Your task to perform on an android device: open app "Firefox Browser" (install if not already installed) Image 0: 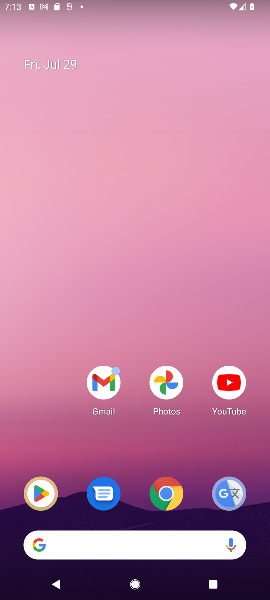
Step 0: drag from (151, 597) to (133, 56)
Your task to perform on an android device: open app "Firefox Browser" (install if not already installed) Image 1: 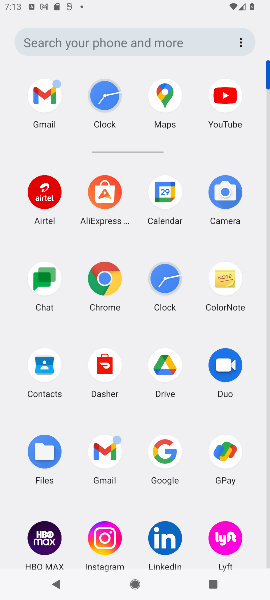
Step 1: drag from (124, 510) to (124, 235)
Your task to perform on an android device: open app "Firefox Browser" (install if not already installed) Image 2: 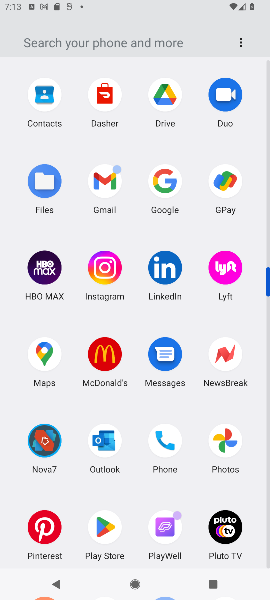
Step 2: drag from (132, 503) to (130, 197)
Your task to perform on an android device: open app "Firefox Browser" (install if not already installed) Image 3: 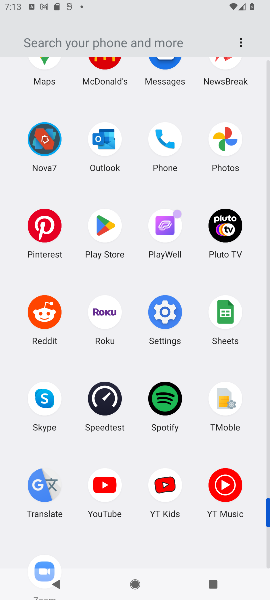
Step 3: press home button
Your task to perform on an android device: open app "Firefox Browser" (install if not already installed) Image 4: 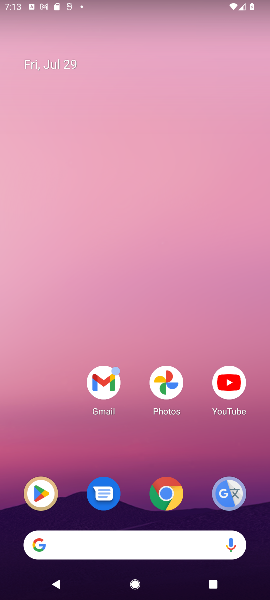
Step 4: drag from (227, 447) to (35, 447)
Your task to perform on an android device: open app "Firefox Browser" (install if not already installed) Image 5: 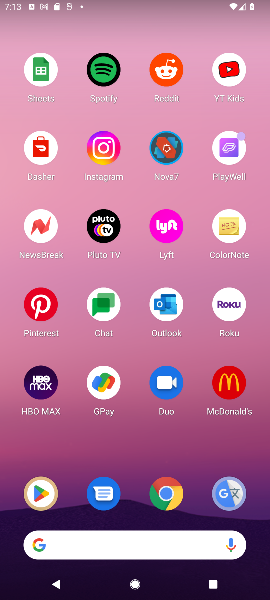
Step 5: drag from (208, 445) to (39, 432)
Your task to perform on an android device: open app "Firefox Browser" (install if not already installed) Image 6: 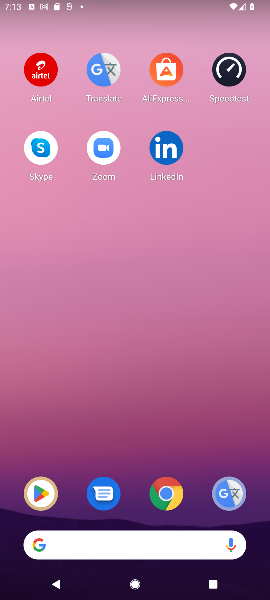
Step 6: click (41, 498)
Your task to perform on an android device: open app "Firefox Browser" (install if not already installed) Image 7: 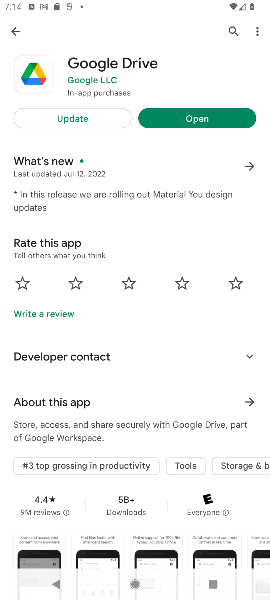
Step 7: click (231, 28)
Your task to perform on an android device: open app "Firefox Browser" (install if not already installed) Image 8: 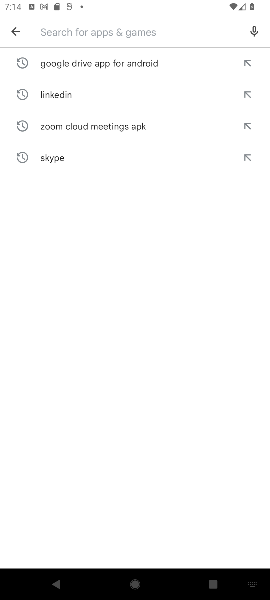
Step 8: type "Firefox Browser"
Your task to perform on an android device: open app "Firefox Browser" (install if not already installed) Image 9: 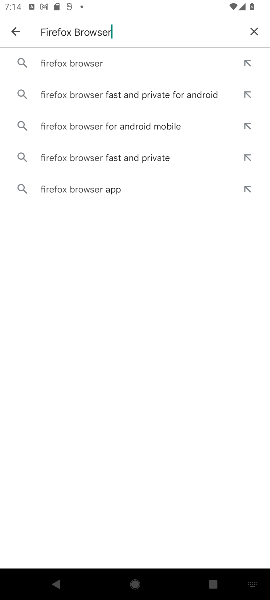
Step 9: click (93, 61)
Your task to perform on an android device: open app "Firefox Browser" (install if not already installed) Image 10: 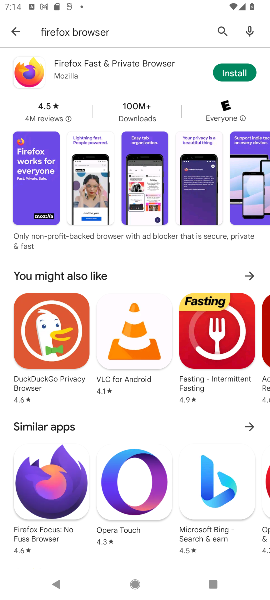
Step 10: click (232, 69)
Your task to perform on an android device: open app "Firefox Browser" (install if not already installed) Image 11: 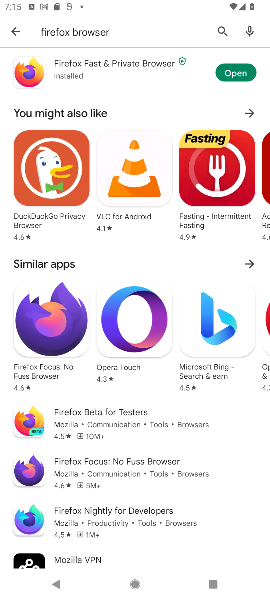
Step 11: task complete